Your task to perform on an android device: toggle translation in the chrome app Image 0: 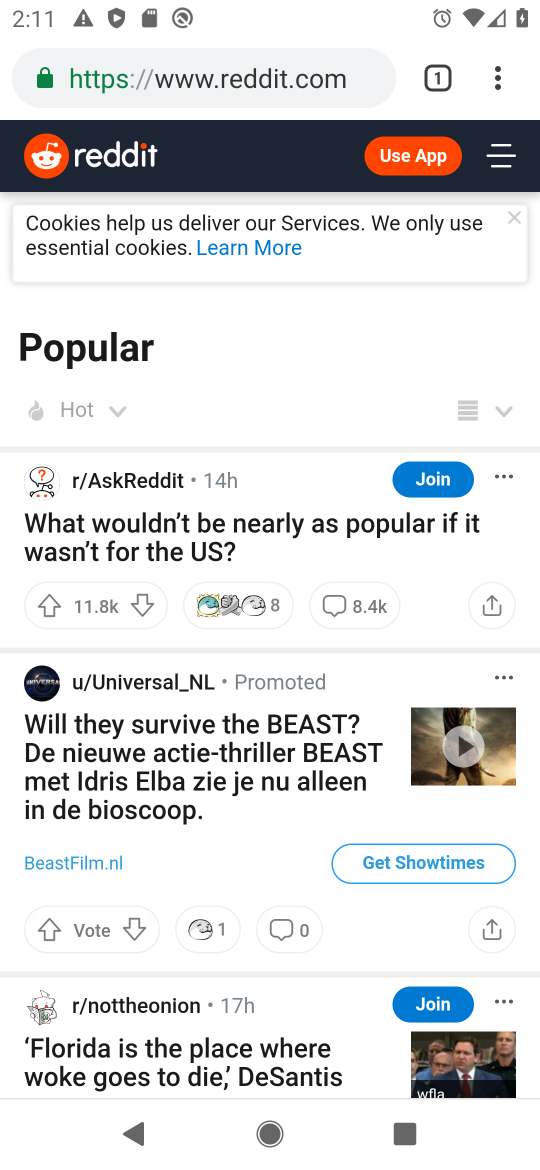
Step 0: click (501, 71)
Your task to perform on an android device: toggle translation in the chrome app Image 1: 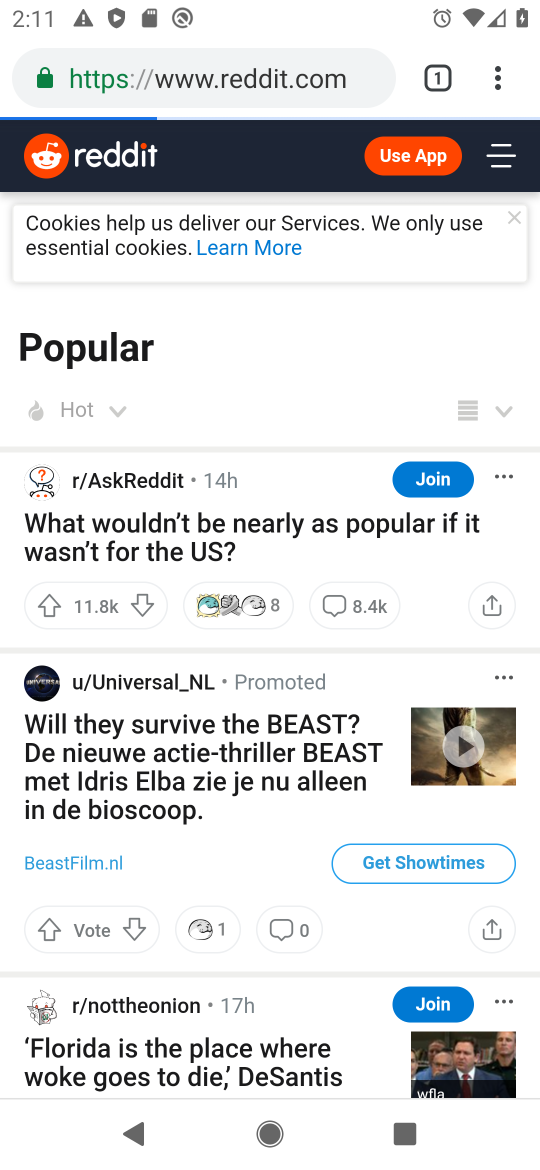
Step 1: drag from (495, 73) to (213, 985)
Your task to perform on an android device: toggle translation in the chrome app Image 2: 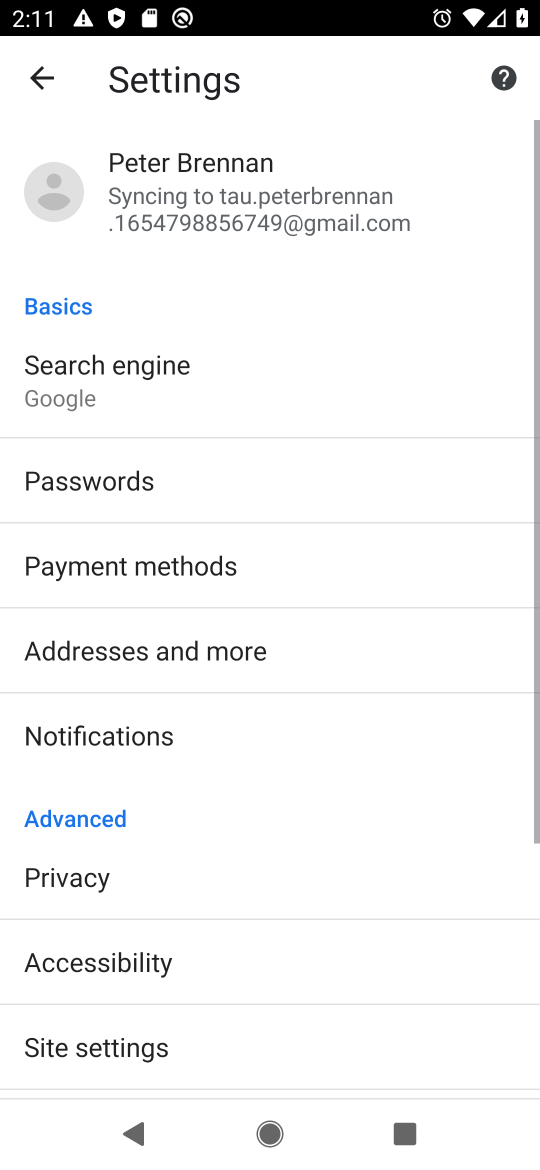
Step 2: drag from (165, 864) to (172, 77)
Your task to perform on an android device: toggle translation in the chrome app Image 3: 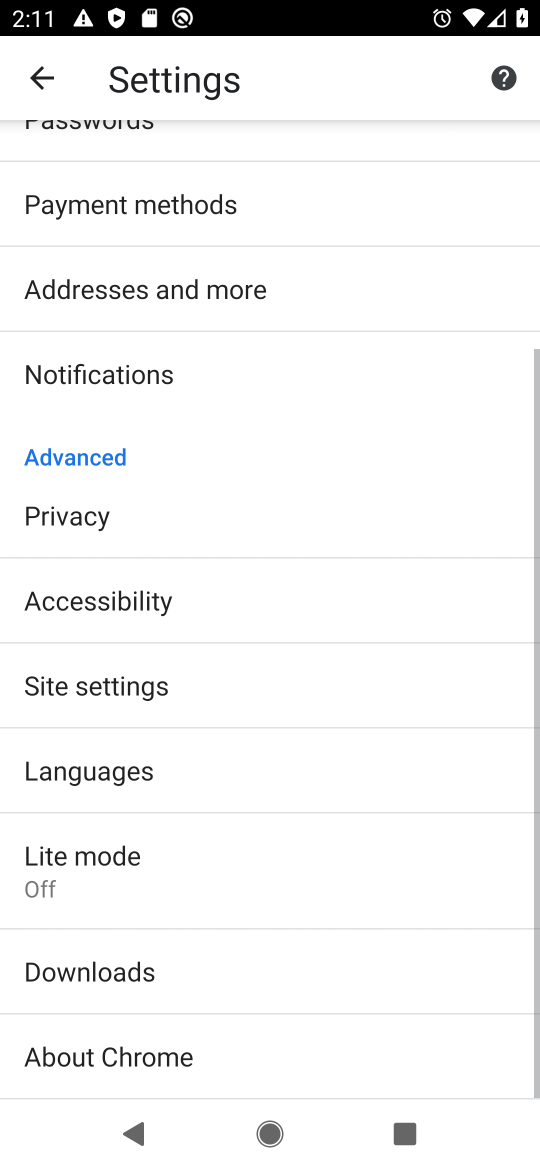
Step 3: click (156, 780)
Your task to perform on an android device: toggle translation in the chrome app Image 4: 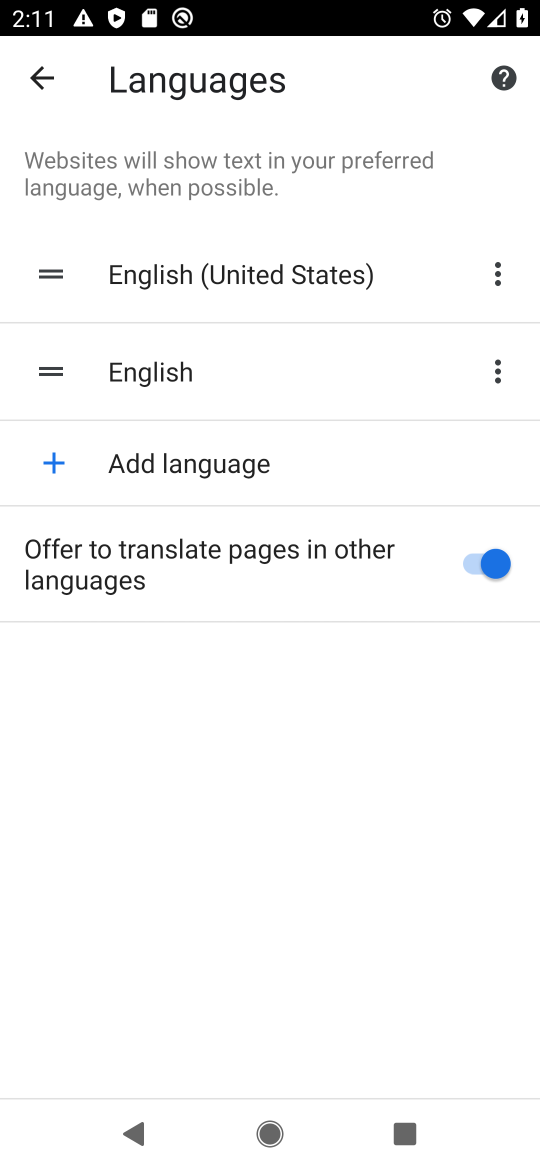
Step 4: click (481, 584)
Your task to perform on an android device: toggle translation in the chrome app Image 5: 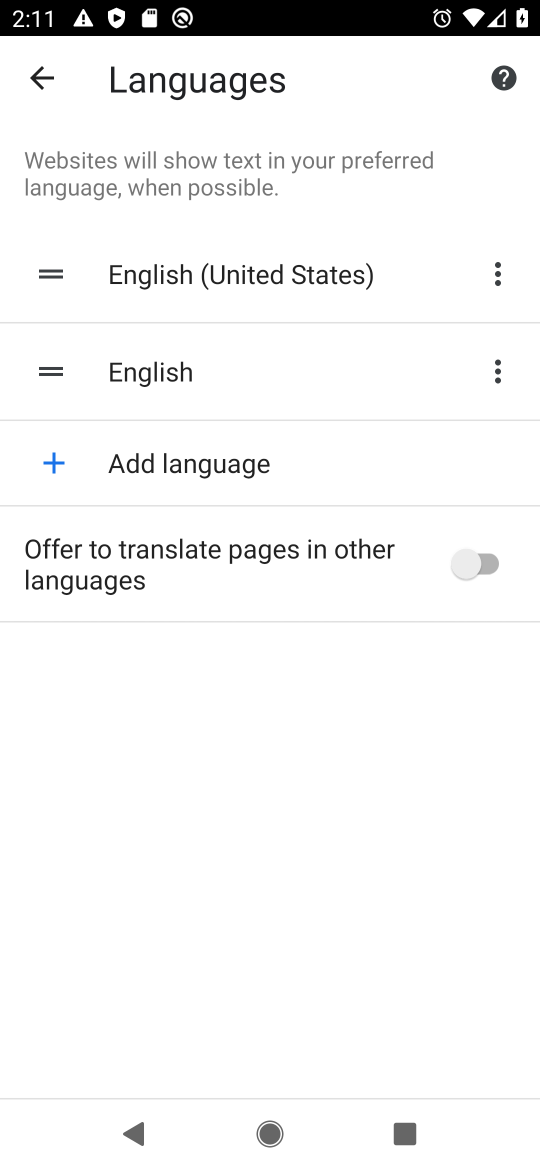
Step 5: task complete